Your task to perform on an android device: check out phone information Image 0: 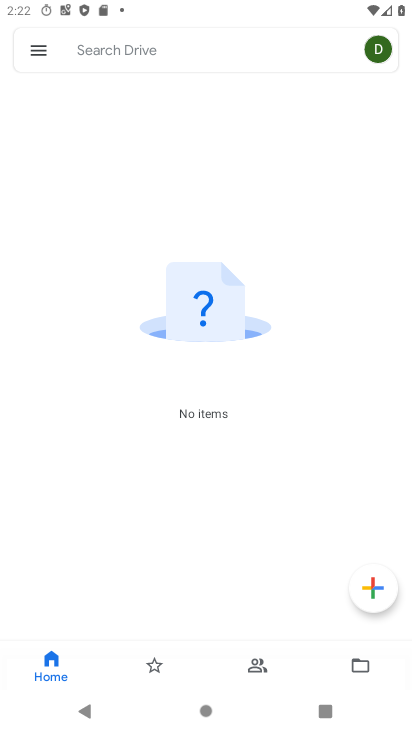
Step 0: click (39, 706)
Your task to perform on an android device: check out phone information Image 1: 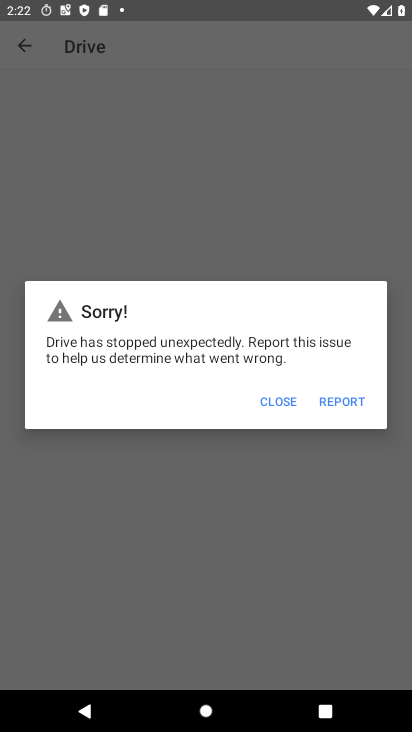
Step 1: press home button
Your task to perform on an android device: check out phone information Image 2: 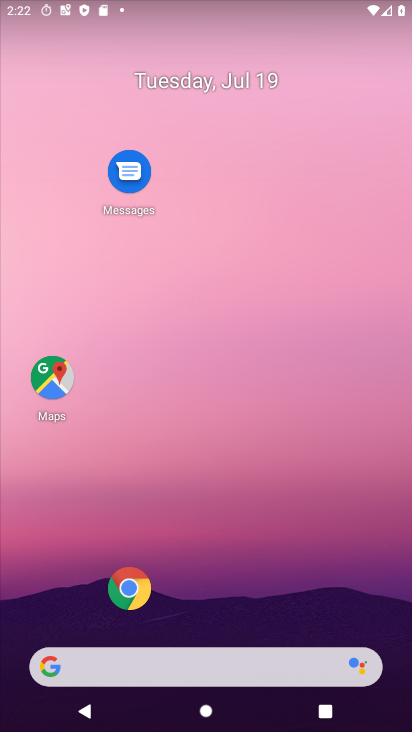
Step 2: drag from (23, 687) to (200, 147)
Your task to perform on an android device: check out phone information Image 3: 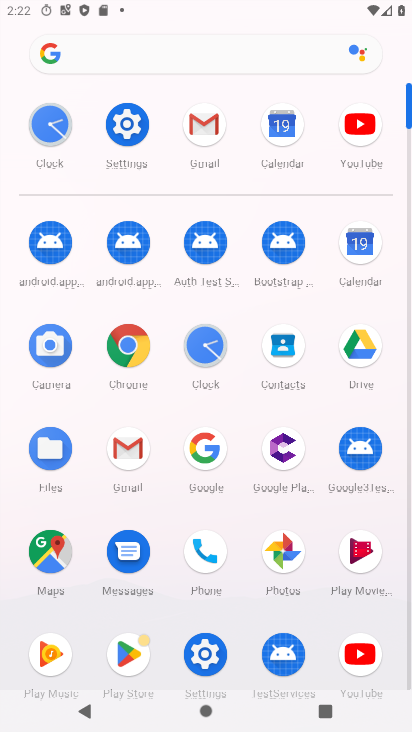
Step 3: click (207, 566)
Your task to perform on an android device: check out phone information Image 4: 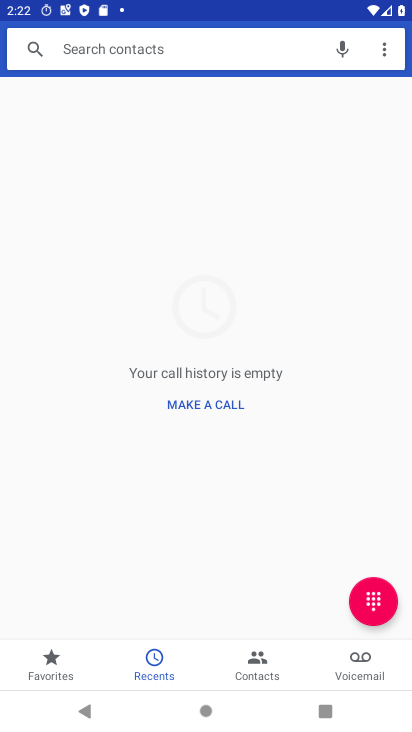
Step 4: click (275, 675)
Your task to perform on an android device: check out phone information Image 5: 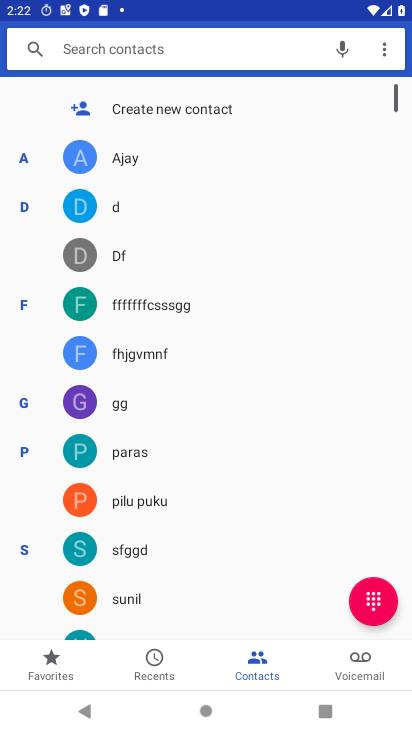
Step 5: task complete